Your task to perform on an android device: Search for vegetarian restaurants on Maps Image 0: 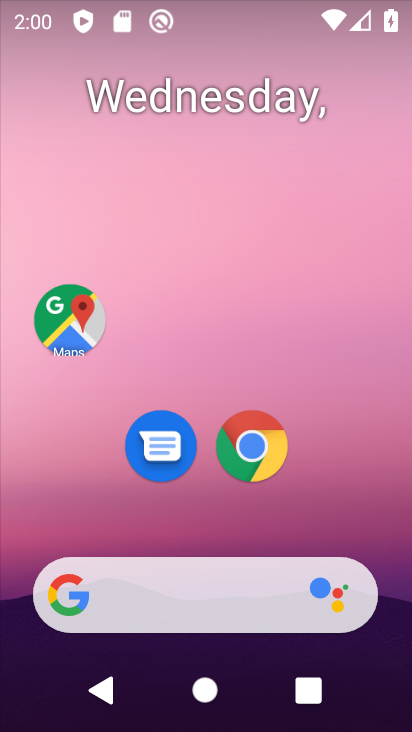
Step 0: click (96, 318)
Your task to perform on an android device: Search for vegetarian restaurants on Maps Image 1: 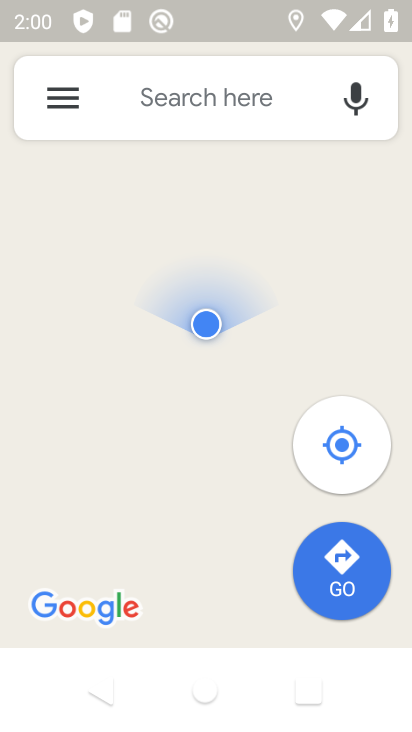
Step 1: click (197, 112)
Your task to perform on an android device: Search for vegetarian restaurants on Maps Image 2: 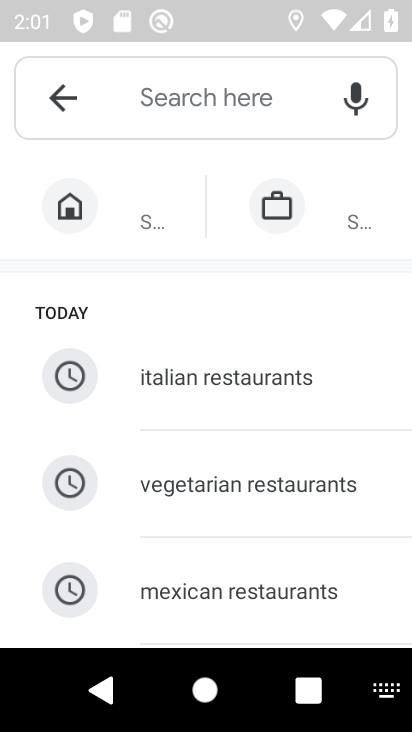
Step 2: click (252, 482)
Your task to perform on an android device: Search for vegetarian restaurants on Maps Image 3: 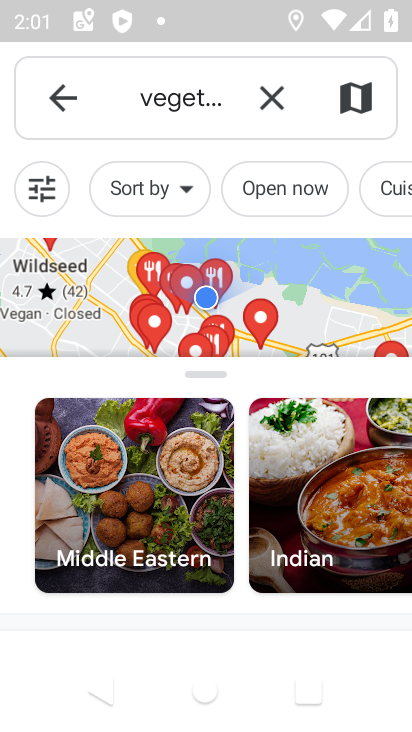
Step 3: task complete